Your task to perform on an android device: Go to Reddit.com Image 0: 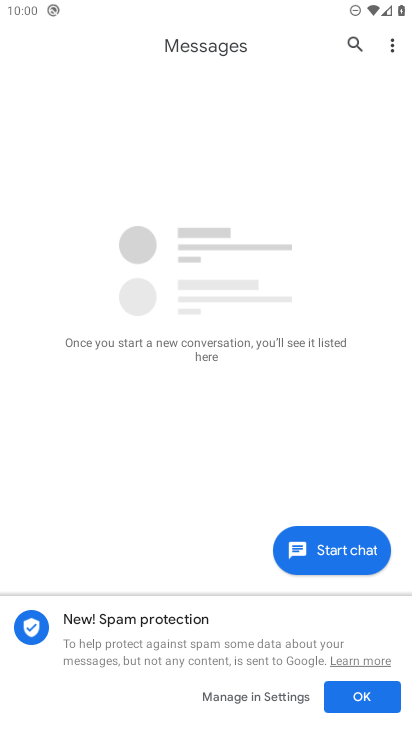
Step 0: press home button
Your task to perform on an android device: Go to Reddit.com Image 1: 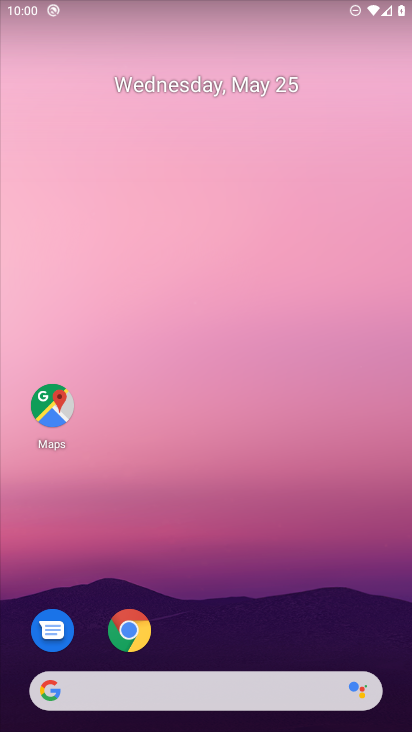
Step 1: drag from (199, 680) to (197, 254)
Your task to perform on an android device: Go to Reddit.com Image 2: 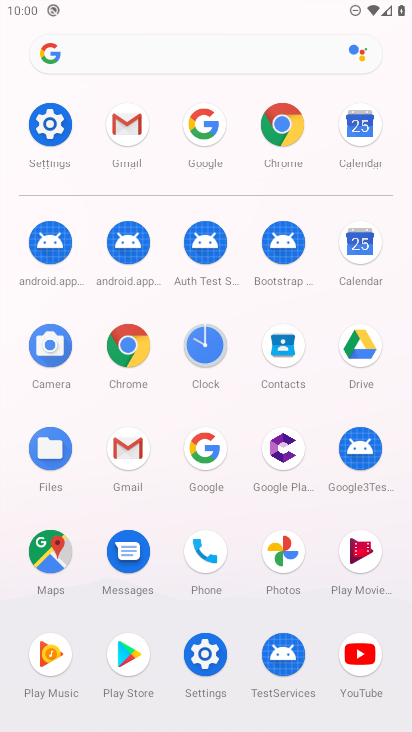
Step 2: click (204, 455)
Your task to perform on an android device: Go to Reddit.com Image 3: 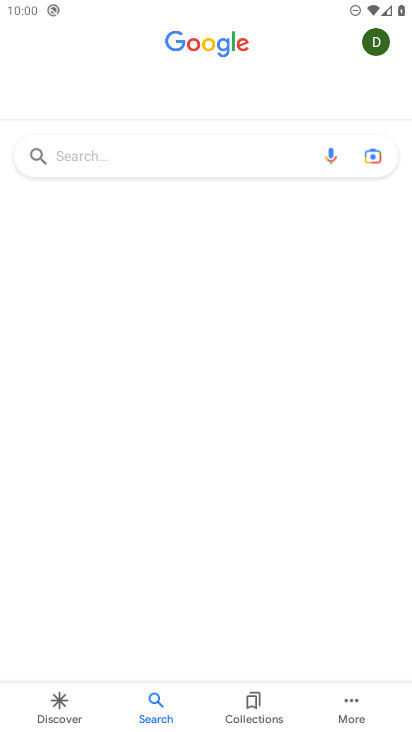
Step 3: click (93, 158)
Your task to perform on an android device: Go to Reddit.com Image 4: 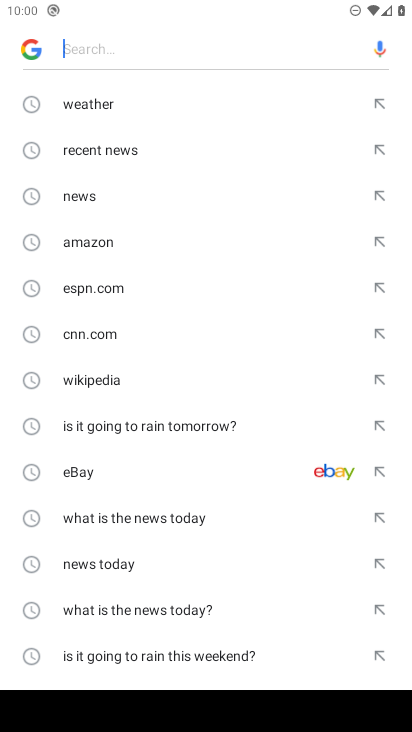
Step 4: drag from (134, 631) to (126, 153)
Your task to perform on an android device: Go to Reddit.com Image 5: 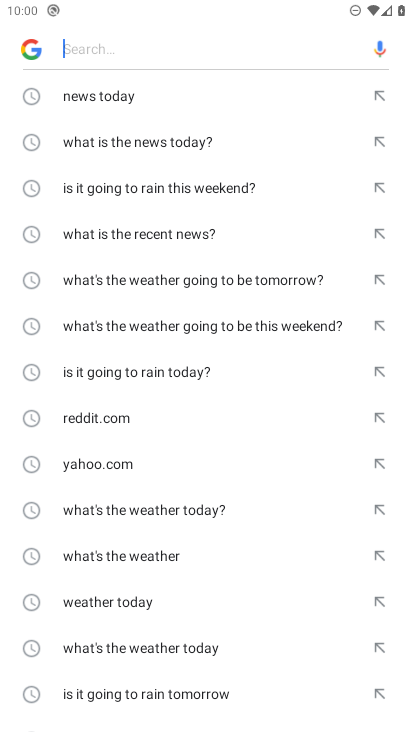
Step 5: drag from (120, 679) to (127, 377)
Your task to perform on an android device: Go to Reddit.com Image 6: 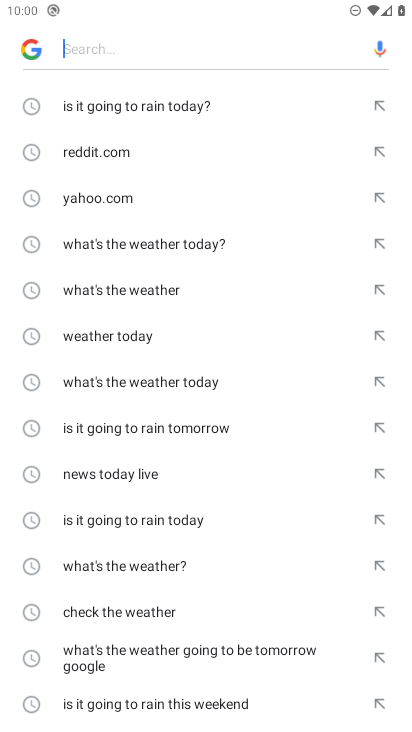
Step 6: click (85, 162)
Your task to perform on an android device: Go to Reddit.com Image 7: 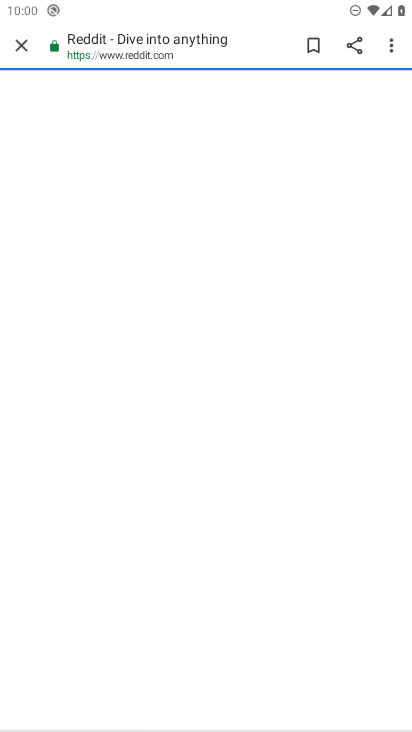
Step 7: task complete